Your task to perform on an android device: What's the weather? Image 0: 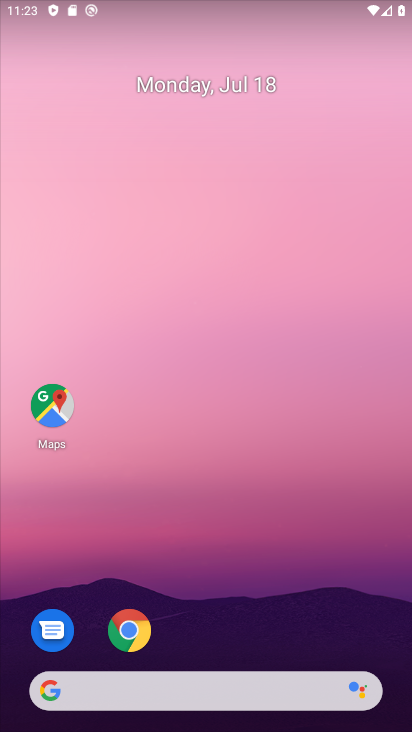
Step 0: click (59, 392)
Your task to perform on an android device: What's the weather? Image 1: 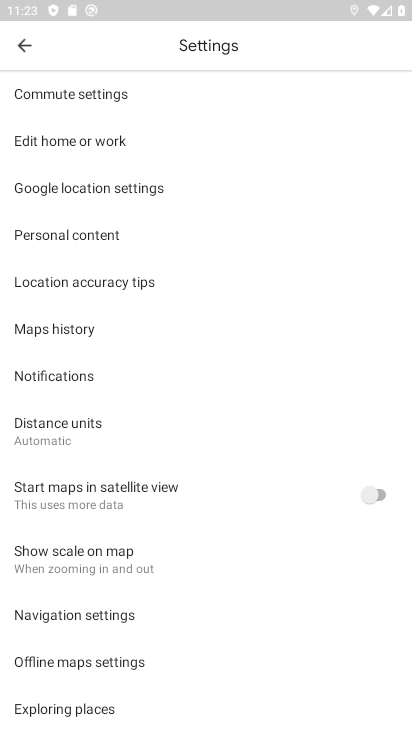
Step 1: click (12, 42)
Your task to perform on an android device: What's the weather? Image 2: 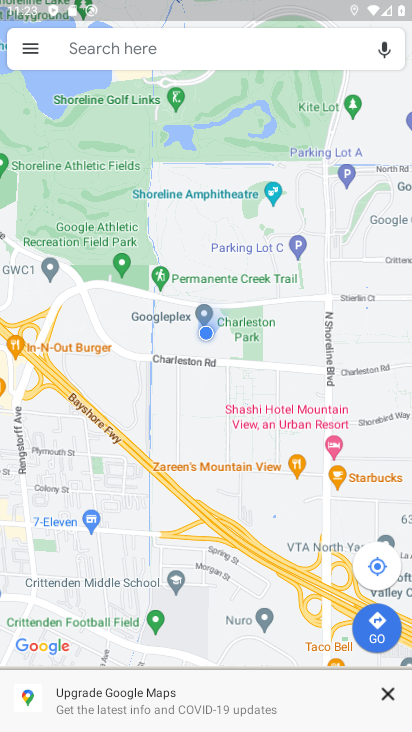
Step 2: task complete